Your task to perform on an android device: toggle javascript in the chrome app Image 0: 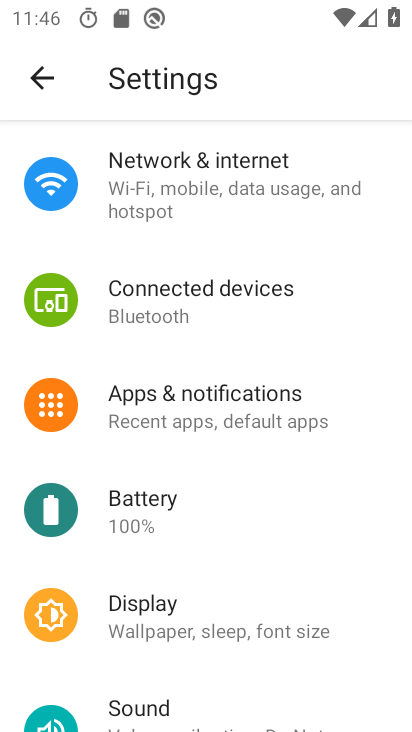
Step 0: press home button
Your task to perform on an android device: toggle javascript in the chrome app Image 1: 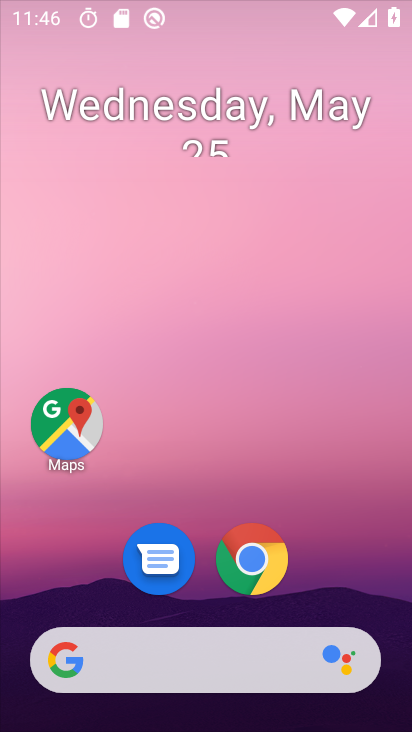
Step 1: drag from (329, 549) to (309, 123)
Your task to perform on an android device: toggle javascript in the chrome app Image 2: 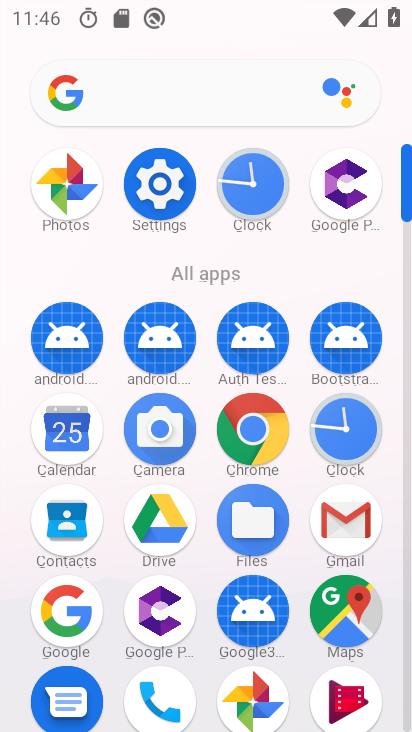
Step 2: click (240, 448)
Your task to perform on an android device: toggle javascript in the chrome app Image 3: 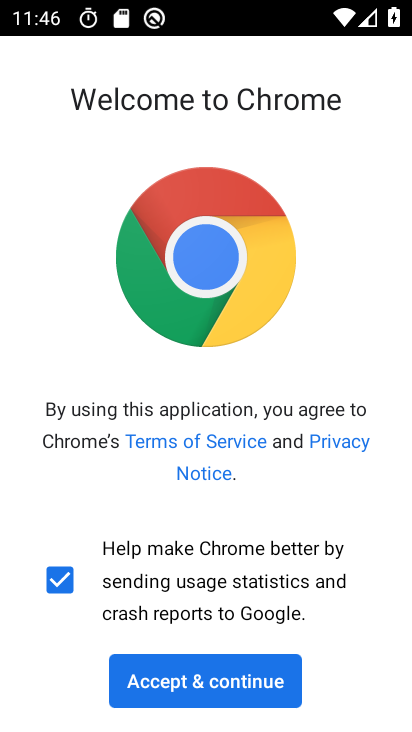
Step 3: click (206, 672)
Your task to perform on an android device: toggle javascript in the chrome app Image 4: 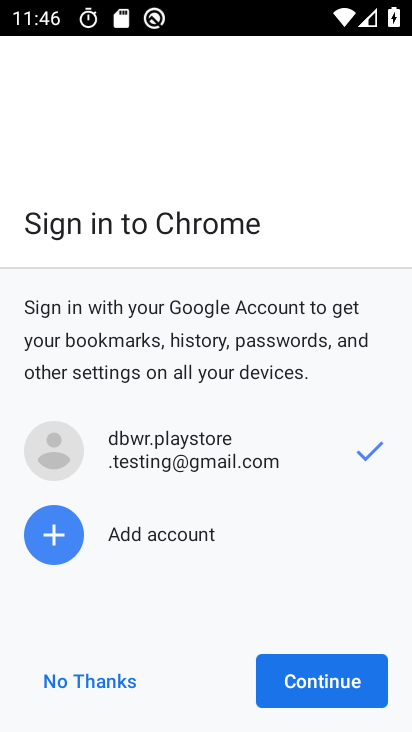
Step 4: click (354, 686)
Your task to perform on an android device: toggle javascript in the chrome app Image 5: 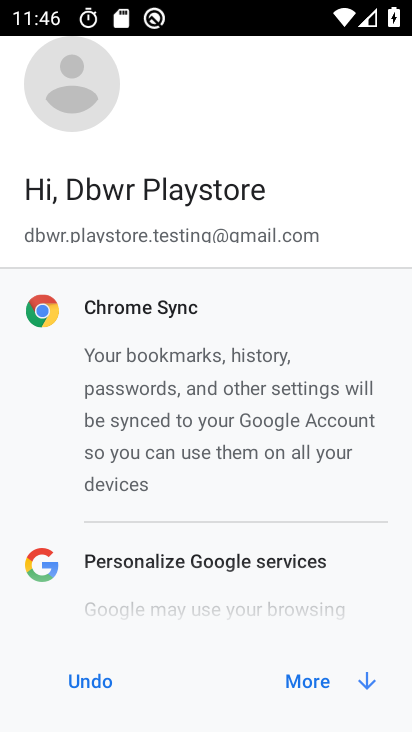
Step 5: click (324, 687)
Your task to perform on an android device: toggle javascript in the chrome app Image 6: 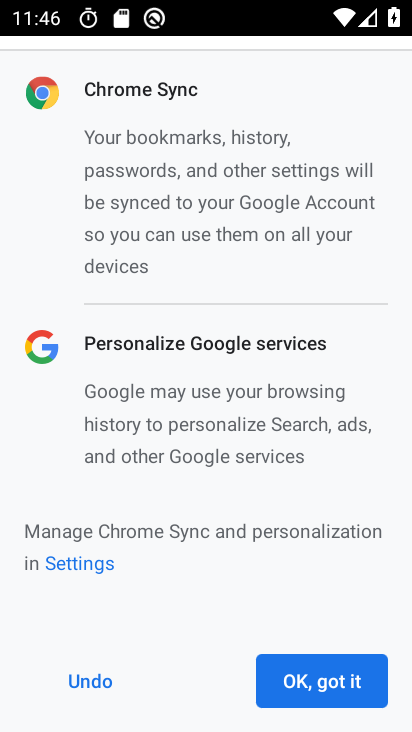
Step 6: click (325, 687)
Your task to perform on an android device: toggle javascript in the chrome app Image 7: 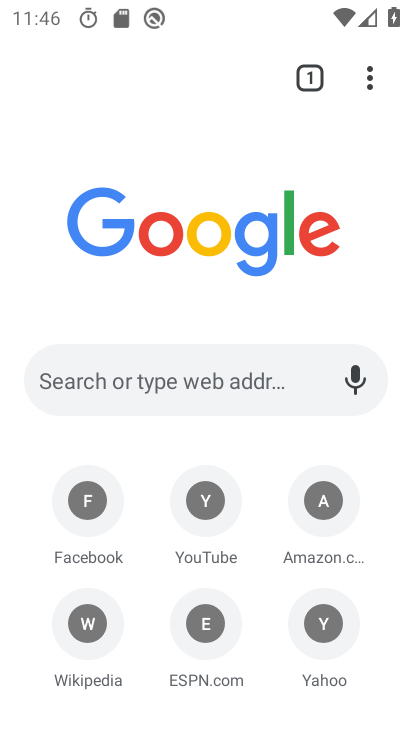
Step 7: drag from (363, 80) to (204, 614)
Your task to perform on an android device: toggle javascript in the chrome app Image 8: 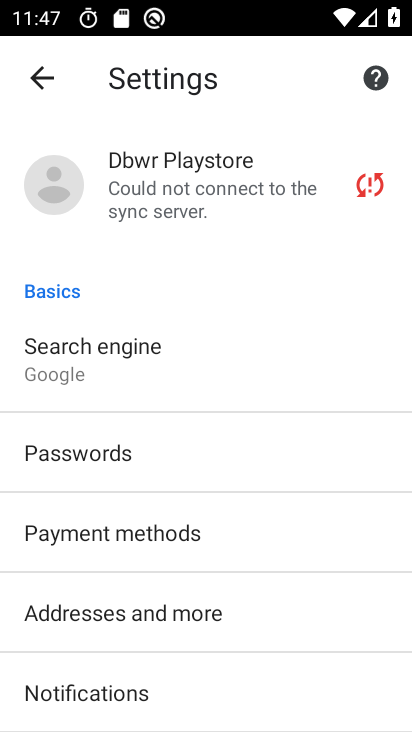
Step 8: drag from (303, 615) to (263, 285)
Your task to perform on an android device: toggle javascript in the chrome app Image 9: 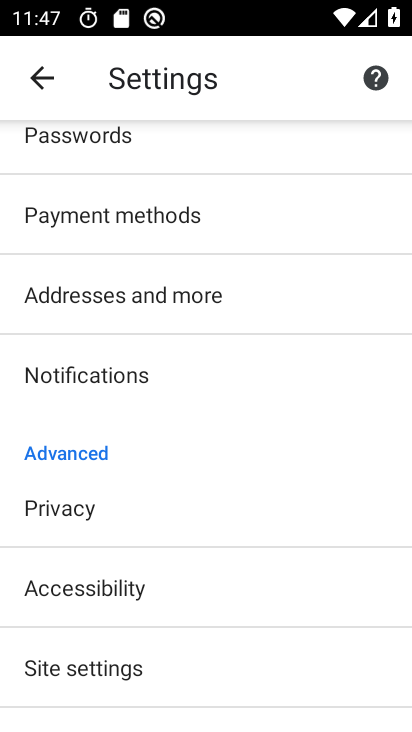
Step 9: drag from (251, 688) to (252, 324)
Your task to perform on an android device: toggle javascript in the chrome app Image 10: 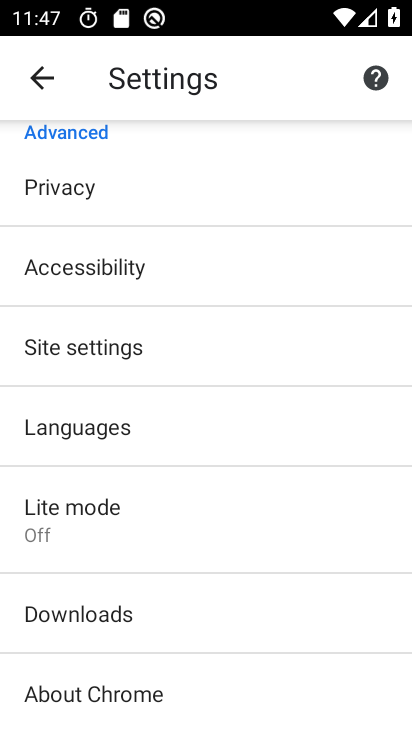
Step 10: click (179, 350)
Your task to perform on an android device: toggle javascript in the chrome app Image 11: 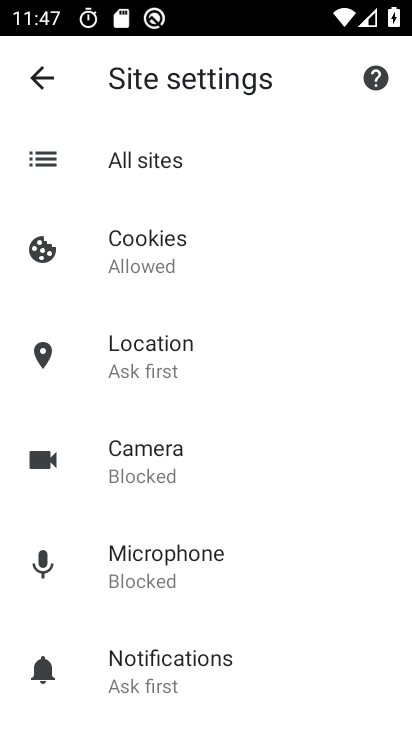
Step 11: drag from (268, 605) to (256, 339)
Your task to perform on an android device: toggle javascript in the chrome app Image 12: 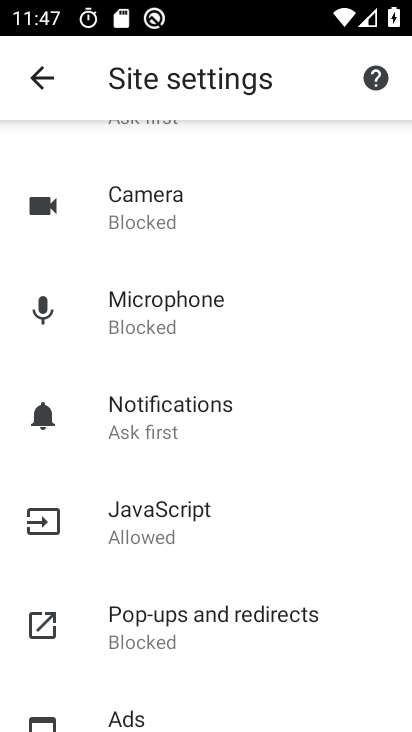
Step 12: click (228, 519)
Your task to perform on an android device: toggle javascript in the chrome app Image 13: 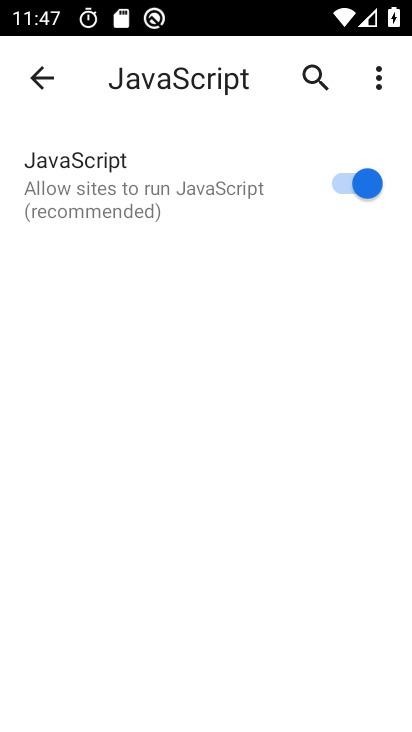
Step 13: click (345, 180)
Your task to perform on an android device: toggle javascript in the chrome app Image 14: 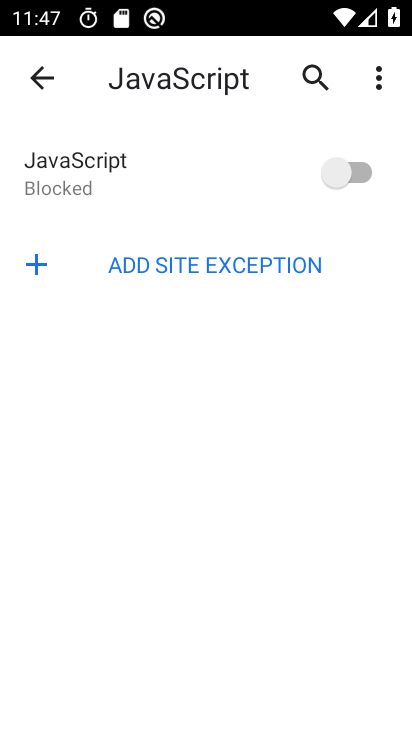
Step 14: task complete